Your task to perform on an android device: Go to notification settings Image 0: 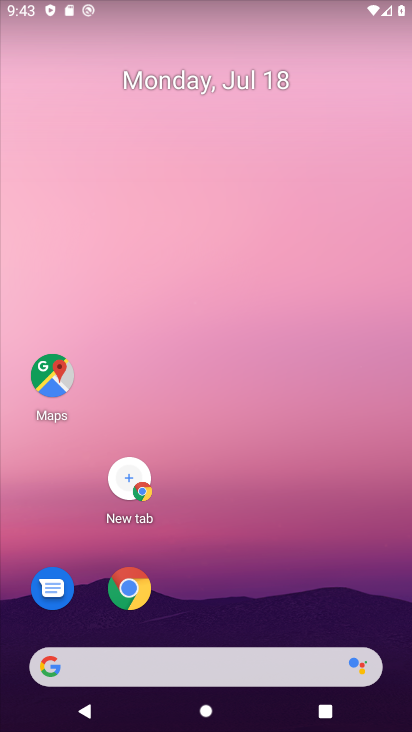
Step 0: drag from (197, 645) to (269, 20)
Your task to perform on an android device: Go to notification settings Image 1: 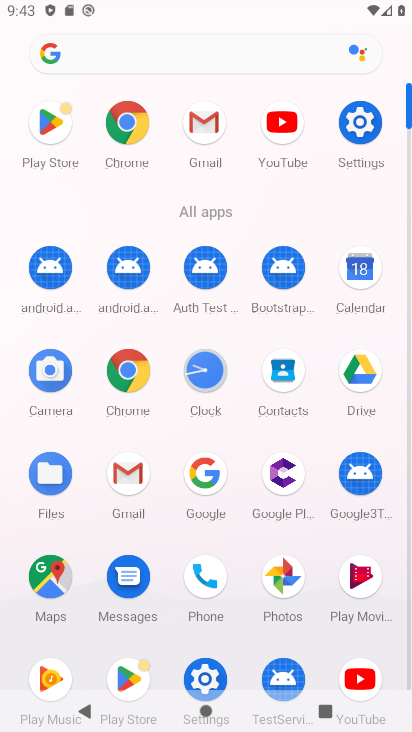
Step 1: click (350, 119)
Your task to perform on an android device: Go to notification settings Image 2: 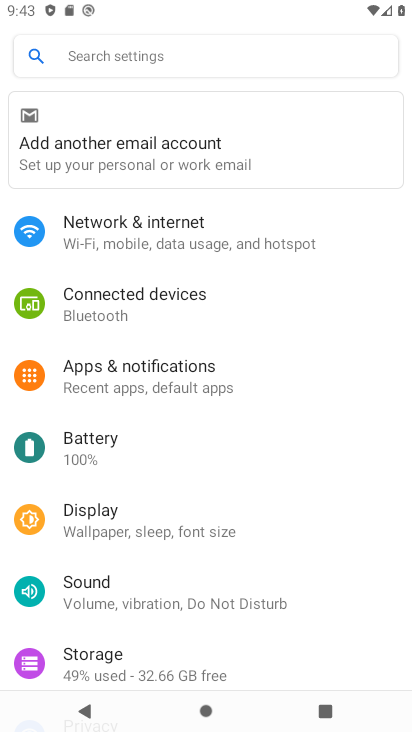
Step 2: click (148, 376)
Your task to perform on an android device: Go to notification settings Image 3: 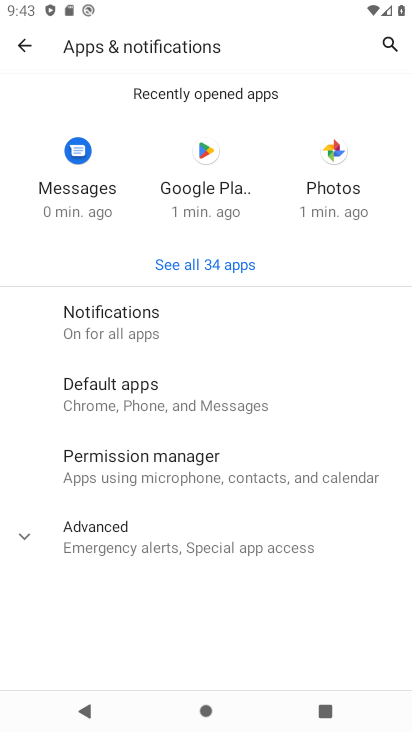
Step 3: task complete